Your task to perform on an android device: open chrome privacy settings Image 0: 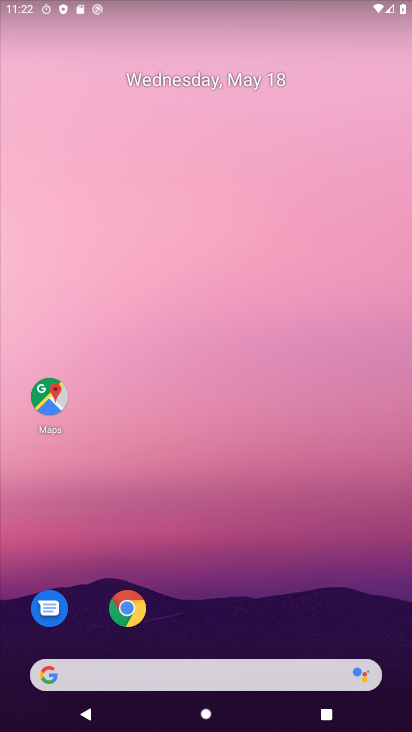
Step 0: click (121, 589)
Your task to perform on an android device: open chrome privacy settings Image 1: 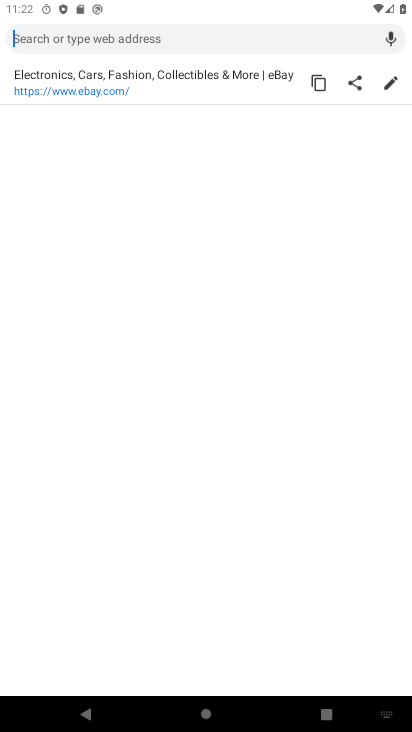
Step 1: press back button
Your task to perform on an android device: open chrome privacy settings Image 2: 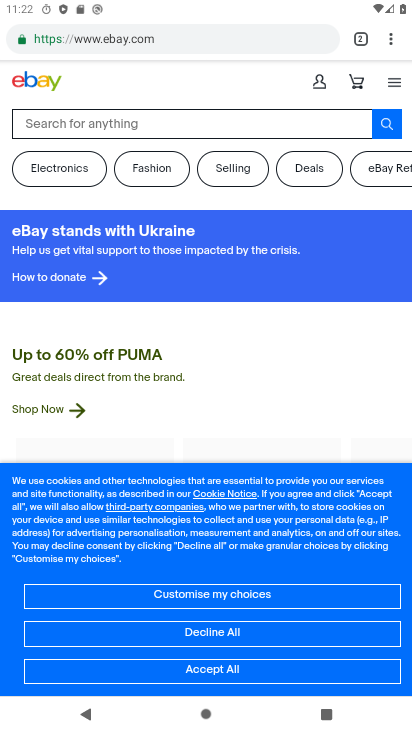
Step 2: click (390, 47)
Your task to perform on an android device: open chrome privacy settings Image 3: 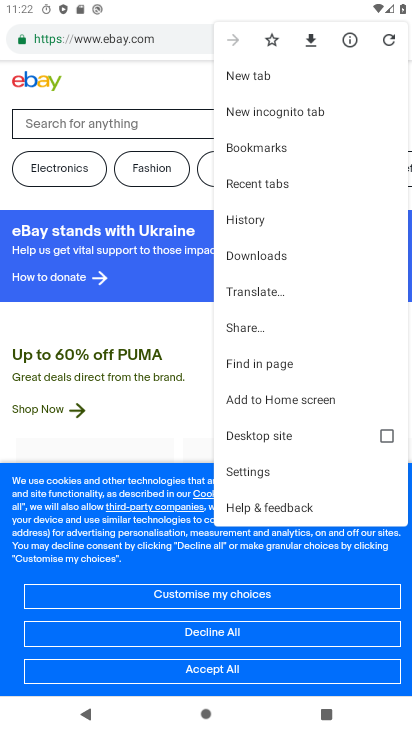
Step 3: click (285, 469)
Your task to perform on an android device: open chrome privacy settings Image 4: 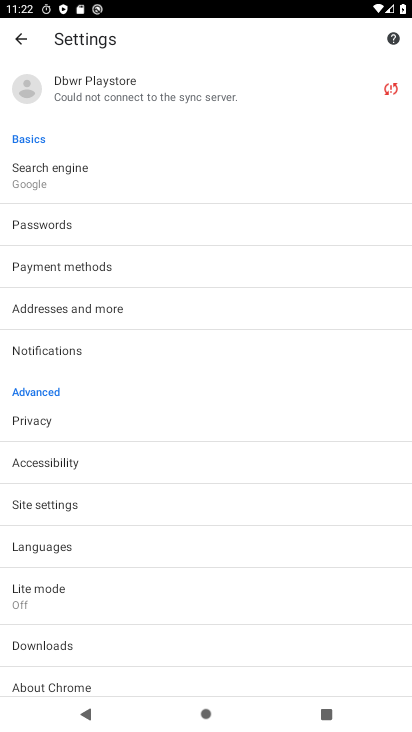
Step 4: click (179, 425)
Your task to perform on an android device: open chrome privacy settings Image 5: 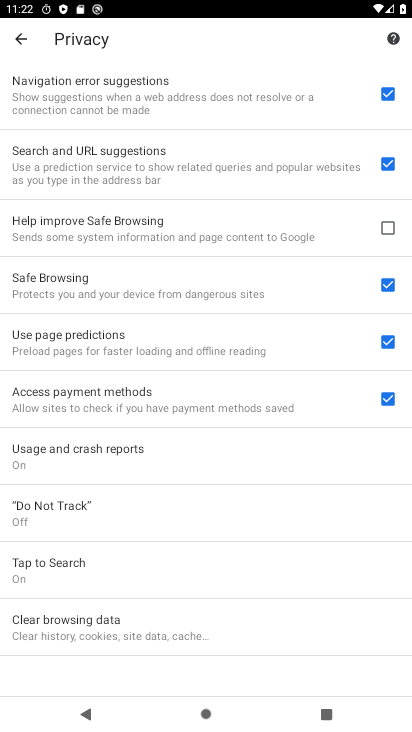
Step 5: task complete